Your task to perform on an android device: turn off notifications in google photos Image 0: 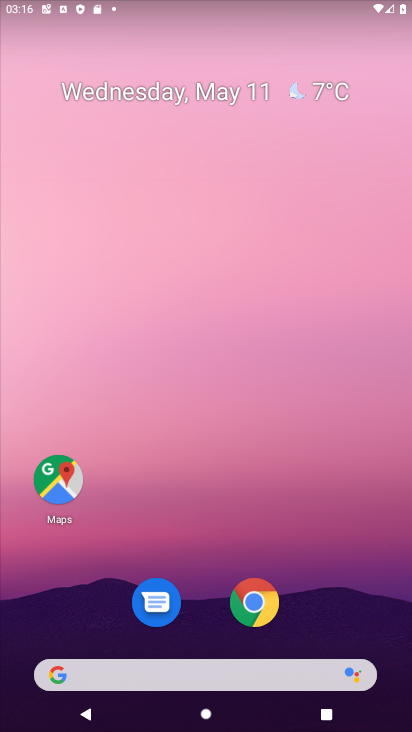
Step 0: task impossible